Your task to perform on an android device: Search for the best rated vacuums on Target Image 0: 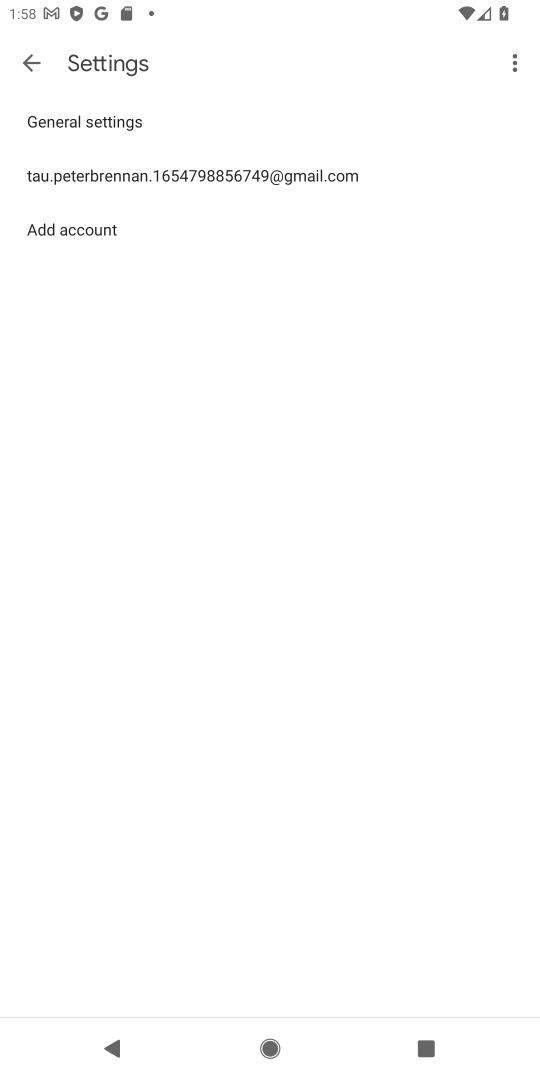
Step 0: press home button
Your task to perform on an android device: Search for the best rated vacuums on Target Image 1: 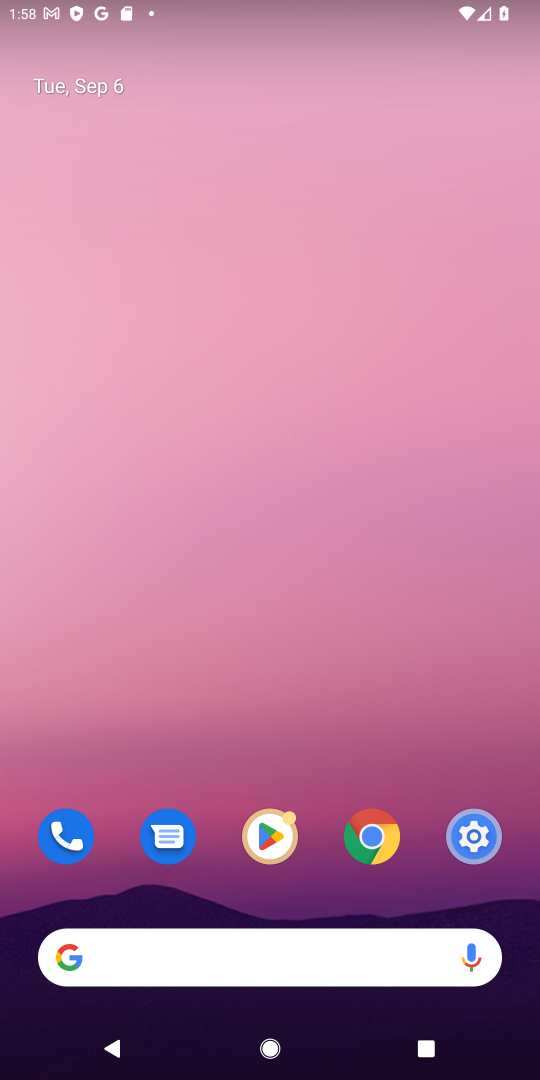
Step 1: click (223, 955)
Your task to perform on an android device: Search for the best rated vacuums on Target Image 2: 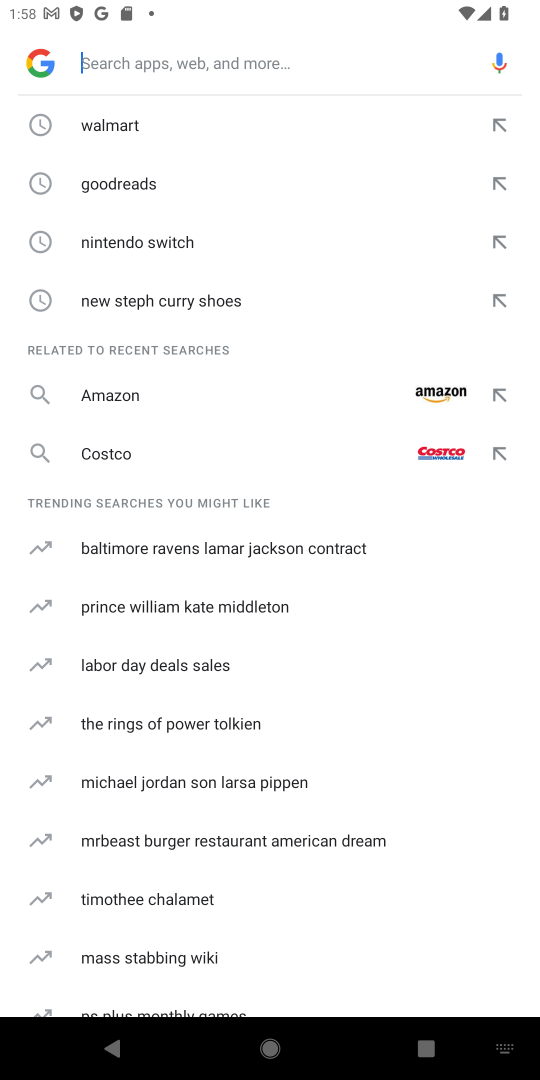
Step 2: type "target"
Your task to perform on an android device: Search for the best rated vacuums on Target Image 3: 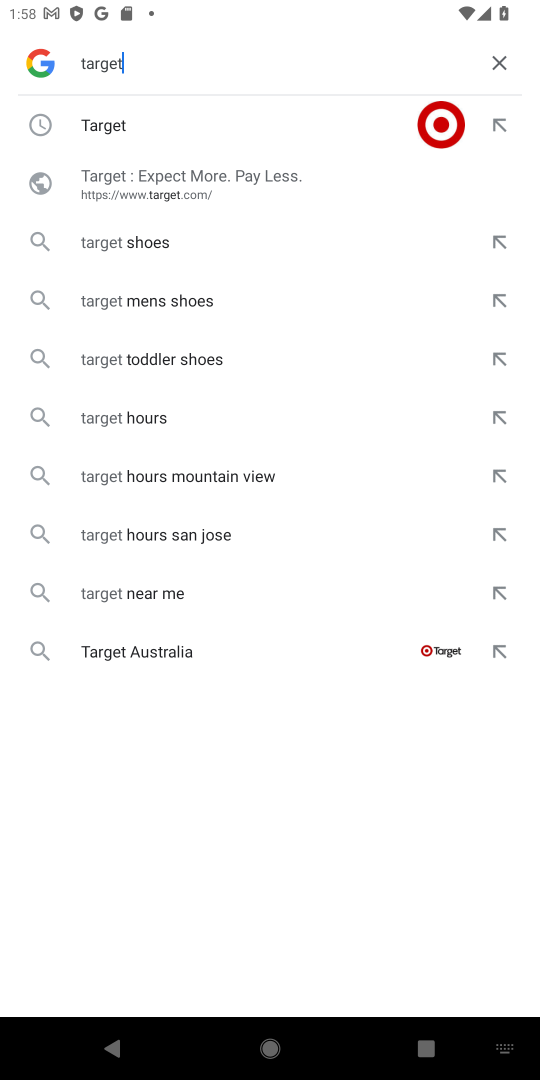
Step 3: click (112, 125)
Your task to perform on an android device: Search for the best rated vacuums on Target Image 4: 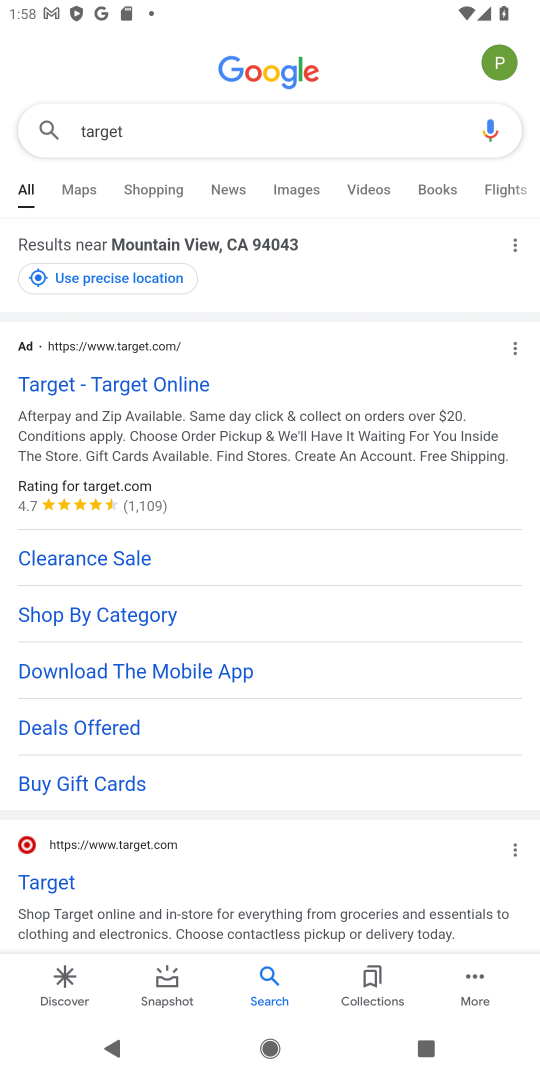
Step 4: click (100, 374)
Your task to perform on an android device: Search for the best rated vacuums on Target Image 5: 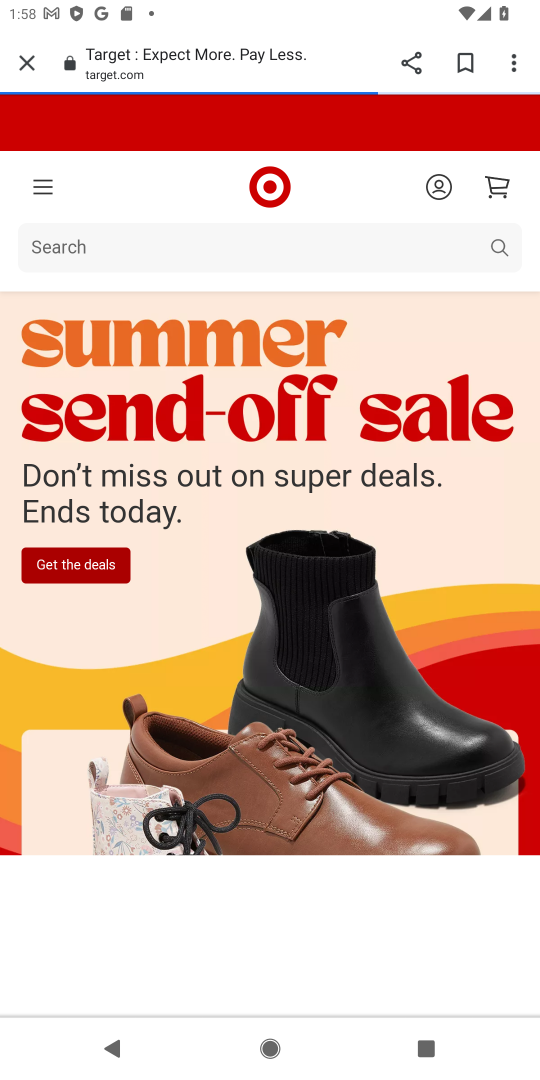
Step 5: click (138, 231)
Your task to perform on an android device: Search for the best rated vacuums on Target Image 6: 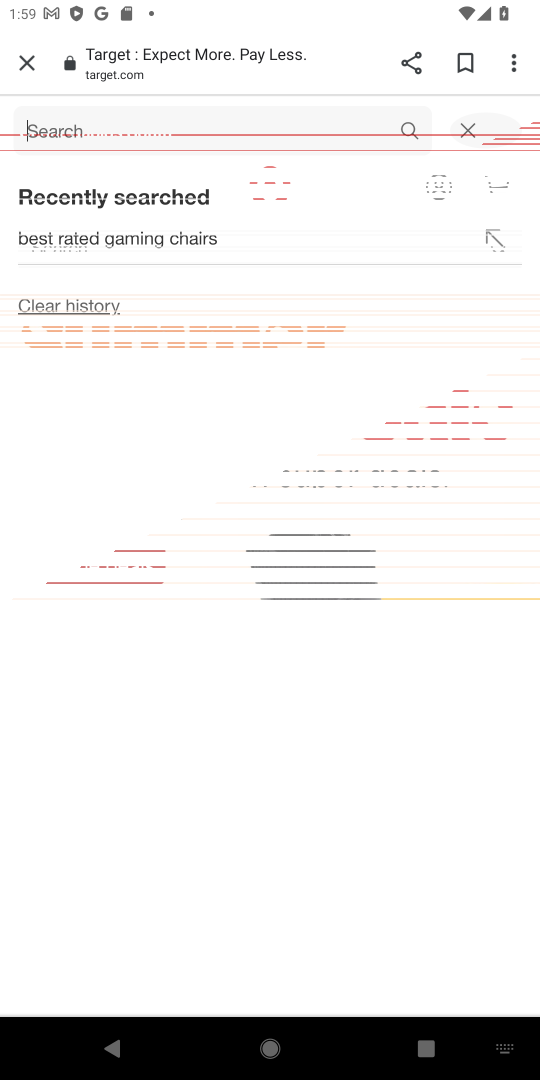
Step 6: type "best rated vacuums"
Your task to perform on an android device: Search for the best rated vacuums on Target Image 7: 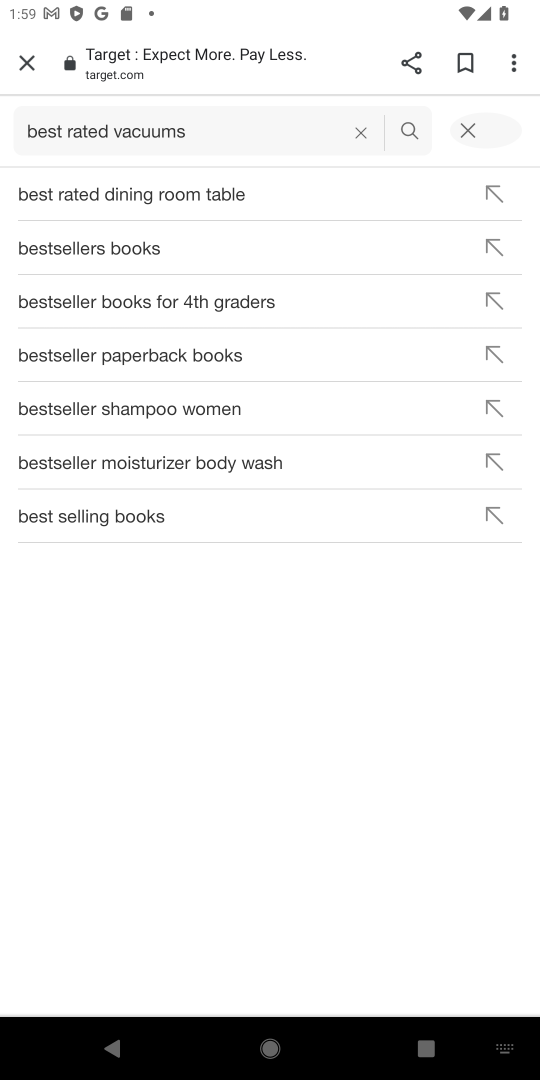
Step 7: click (408, 123)
Your task to perform on an android device: Search for the best rated vacuums on Target Image 8: 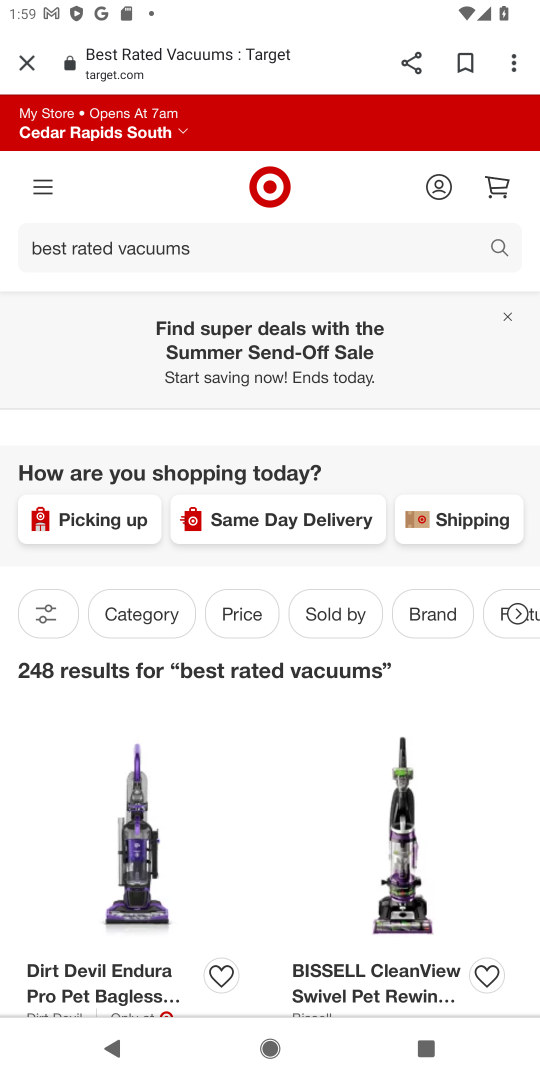
Step 8: task complete